Your task to perform on an android device: Go to accessibility settings Image 0: 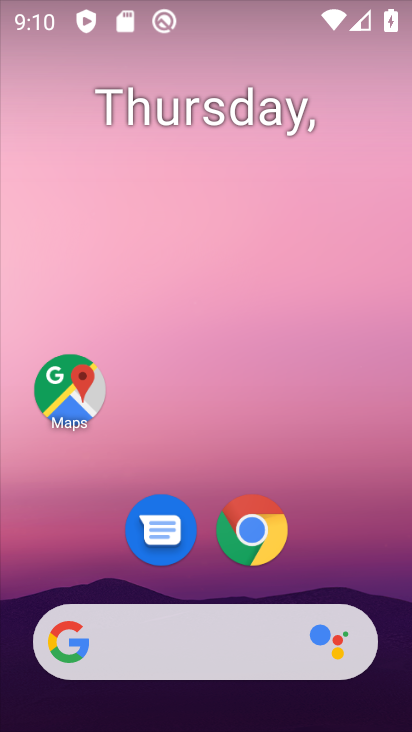
Step 0: drag from (324, 499) to (272, 30)
Your task to perform on an android device: Go to accessibility settings Image 1: 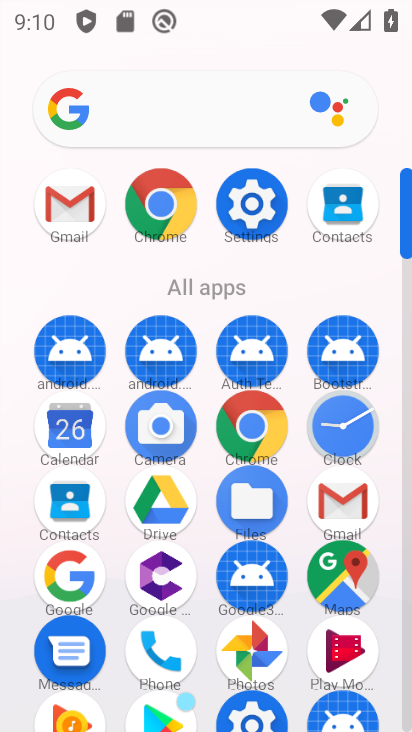
Step 1: drag from (6, 543) to (21, 259)
Your task to perform on an android device: Go to accessibility settings Image 2: 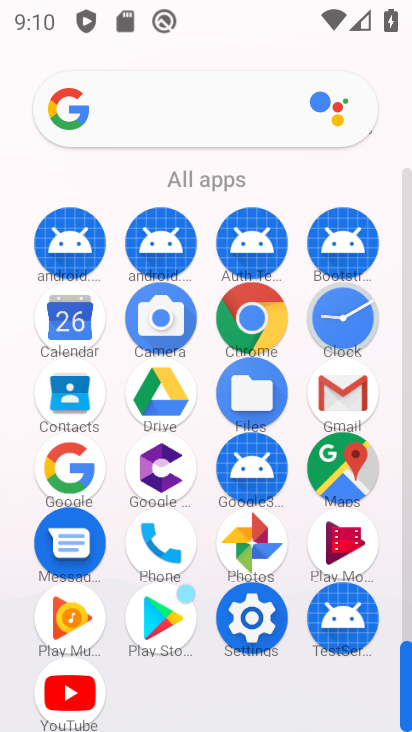
Step 2: click (249, 612)
Your task to perform on an android device: Go to accessibility settings Image 3: 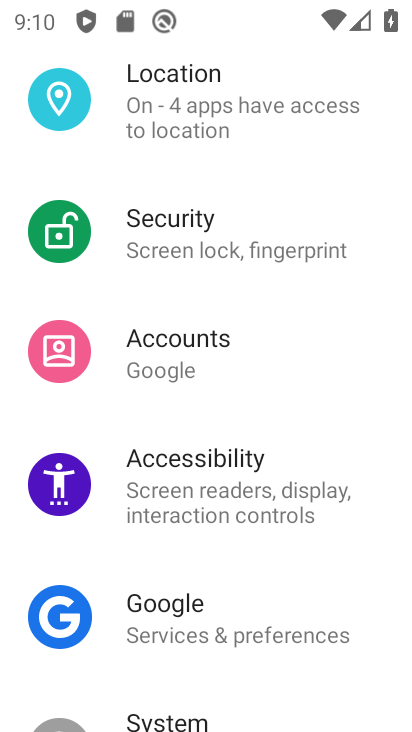
Step 3: drag from (301, 535) to (297, 258)
Your task to perform on an android device: Go to accessibility settings Image 4: 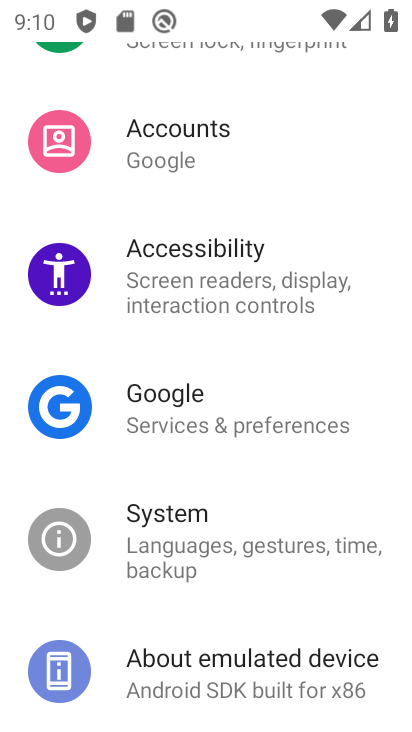
Step 4: click (241, 251)
Your task to perform on an android device: Go to accessibility settings Image 5: 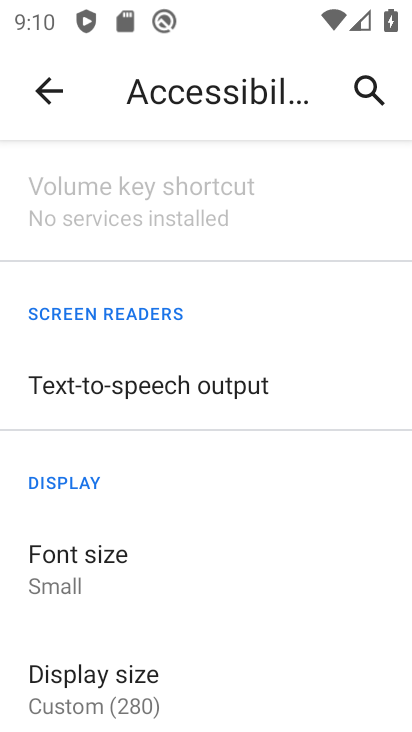
Step 5: task complete